Your task to perform on an android device: open chrome privacy settings Image 0: 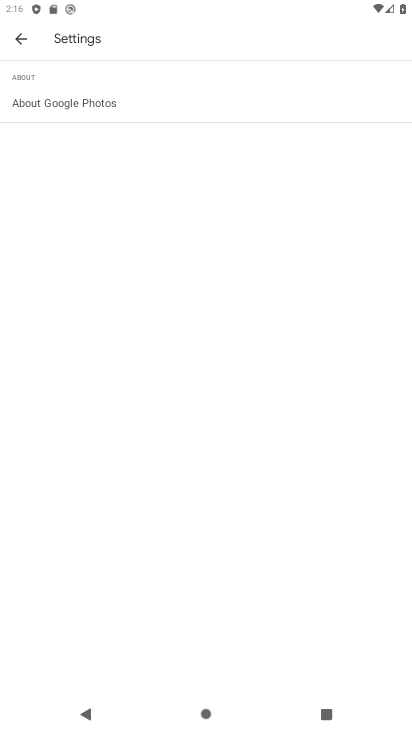
Step 0: press home button
Your task to perform on an android device: open chrome privacy settings Image 1: 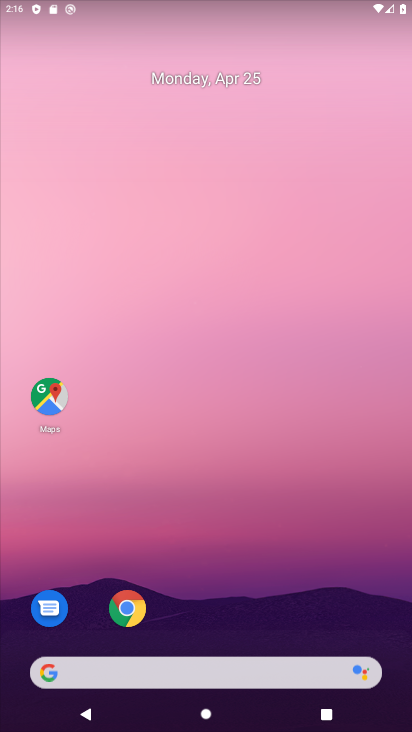
Step 1: drag from (306, 572) to (339, 9)
Your task to perform on an android device: open chrome privacy settings Image 2: 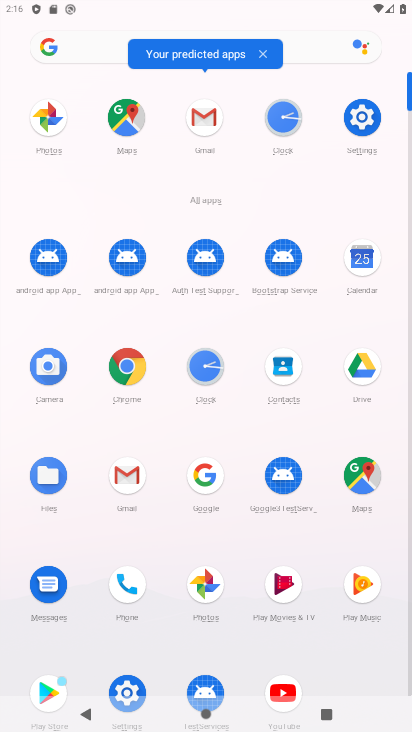
Step 2: click (133, 376)
Your task to perform on an android device: open chrome privacy settings Image 3: 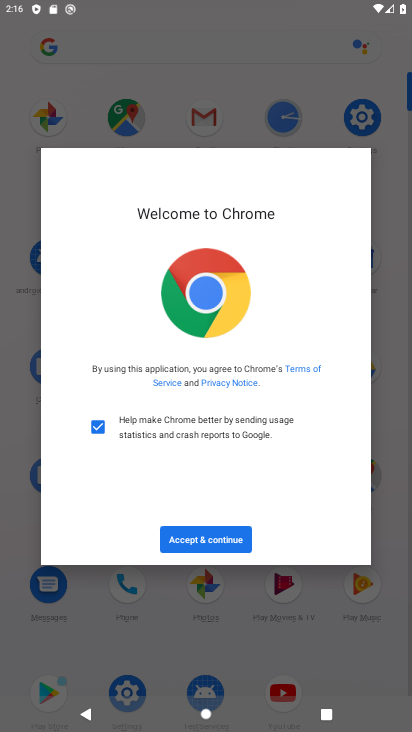
Step 3: click (221, 541)
Your task to perform on an android device: open chrome privacy settings Image 4: 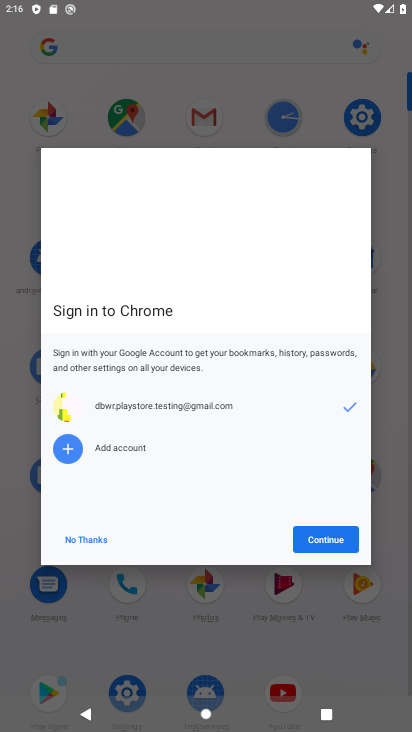
Step 4: click (299, 537)
Your task to perform on an android device: open chrome privacy settings Image 5: 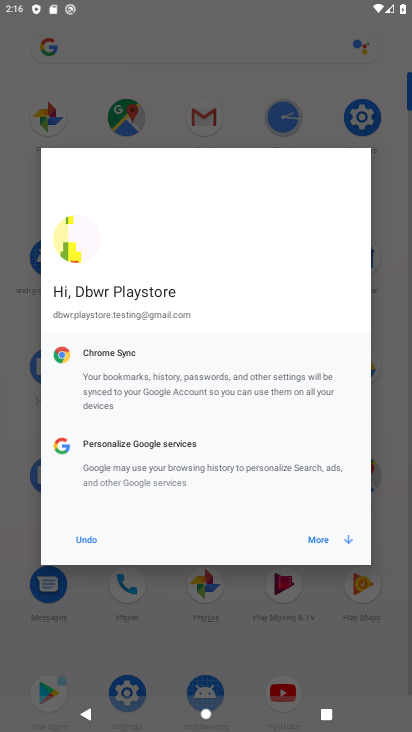
Step 5: click (313, 534)
Your task to perform on an android device: open chrome privacy settings Image 6: 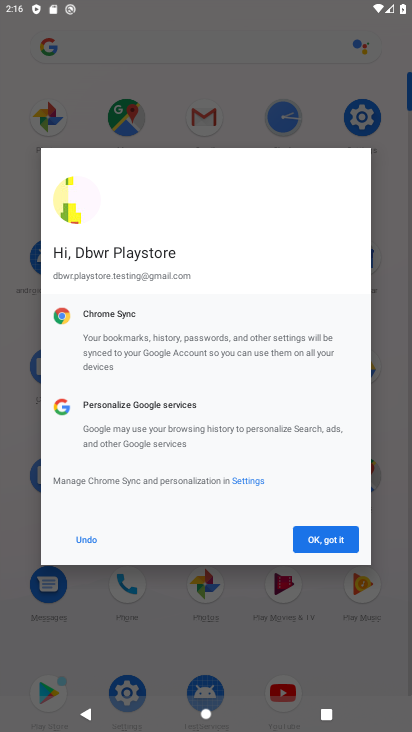
Step 6: click (313, 534)
Your task to perform on an android device: open chrome privacy settings Image 7: 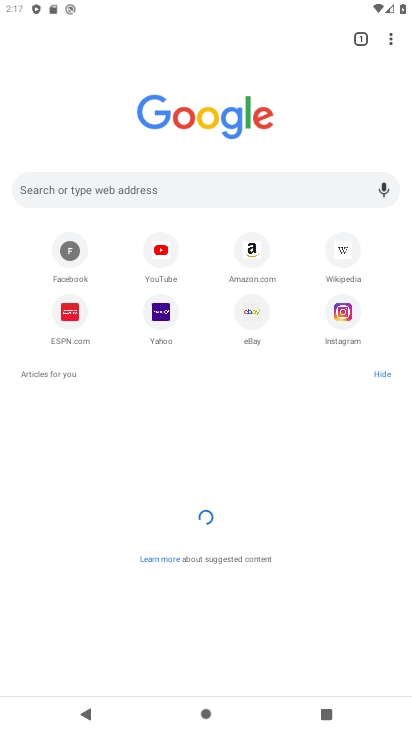
Step 7: click (387, 39)
Your task to perform on an android device: open chrome privacy settings Image 8: 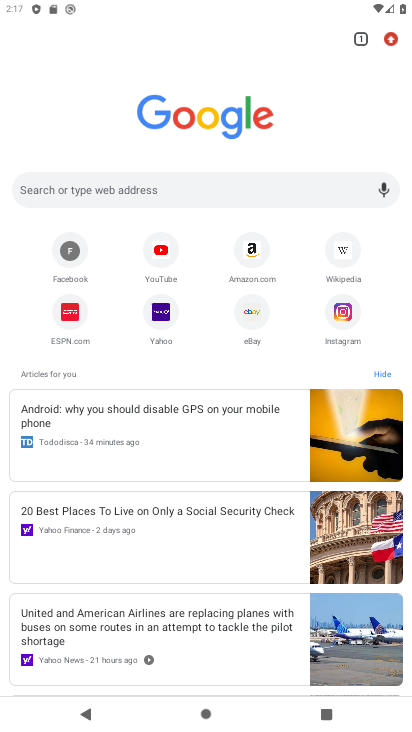
Step 8: click (389, 41)
Your task to perform on an android device: open chrome privacy settings Image 9: 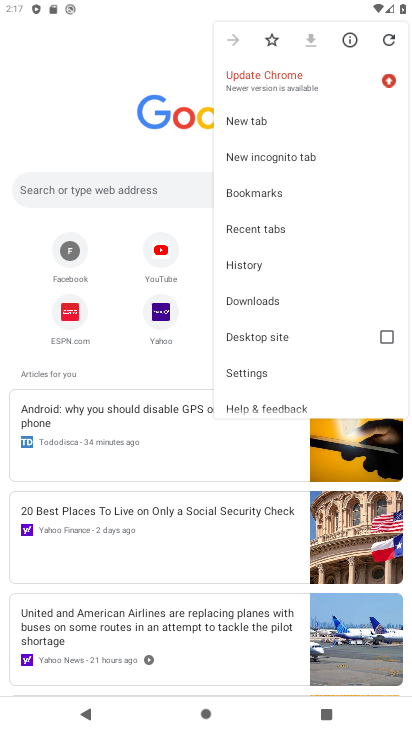
Step 9: click (266, 378)
Your task to perform on an android device: open chrome privacy settings Image 10: 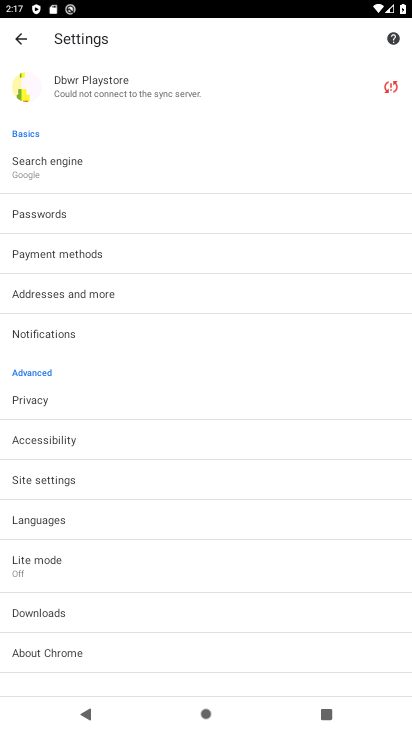
Step 10: click (73, 401)
Your task to perform on an android device: open chrome privacy settings Image 11: 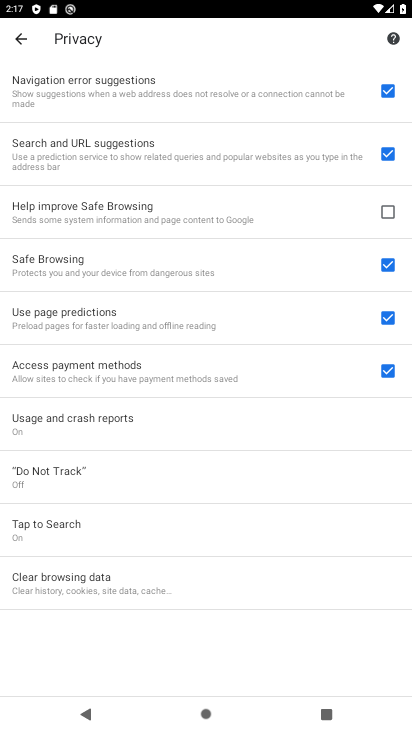
Step 11: task complete